Your task to perform on an android device: Go to sound settings Image 0: 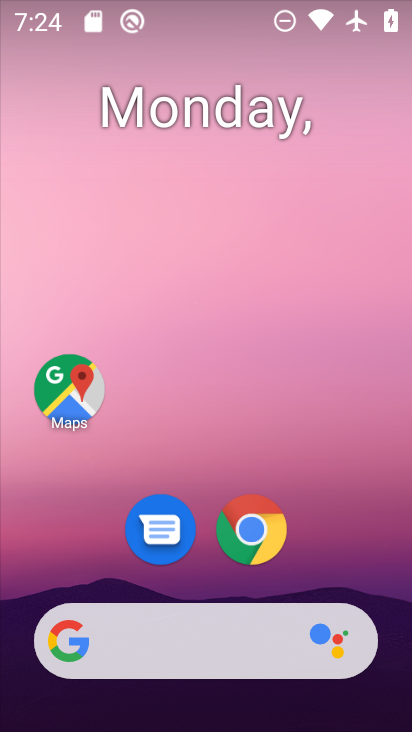
Step 0: drag from (321, 493) to (168, 61)
Your task to perform on an android device: Go to sound settings Image 1: 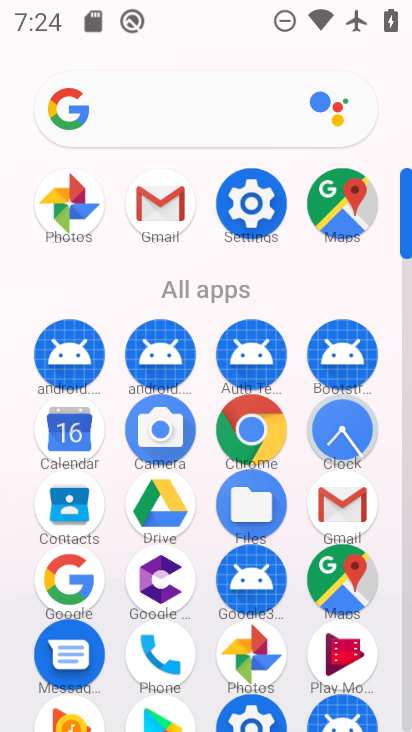
Step 1: click (252, 201)
Your task to perform on an android device: Go to sound settings Image 2: 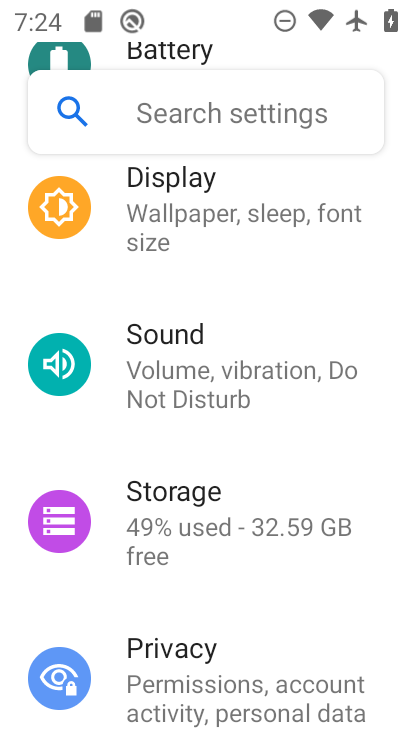
Step 2: drag from (231, 469) to (164, 237)
Your task to perform on an android device: Go to sound settings Image 3: 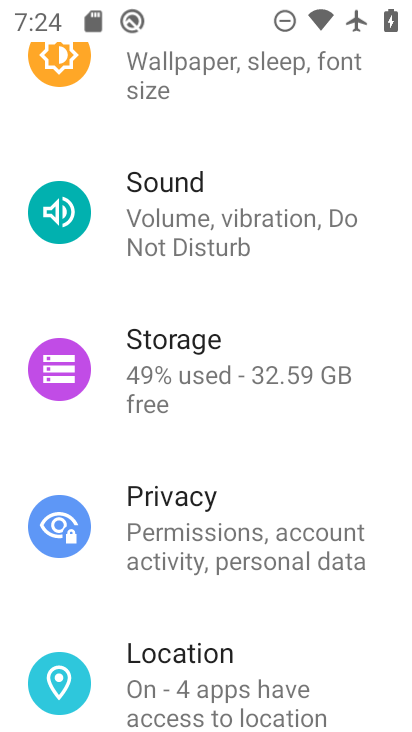
Step 3: drag from (270, 604) to (233, 608)
Your task to perform on an android device: Go to sound settings Image 4: 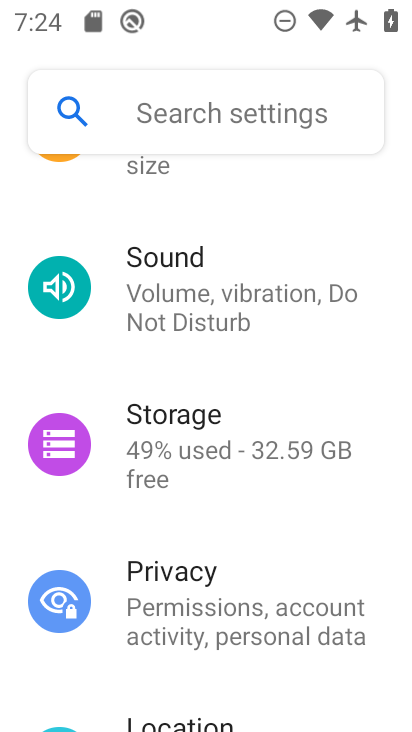
Step 4: click (146, 254)
Your task to perform on an android device: Go to sound settings Image 5: 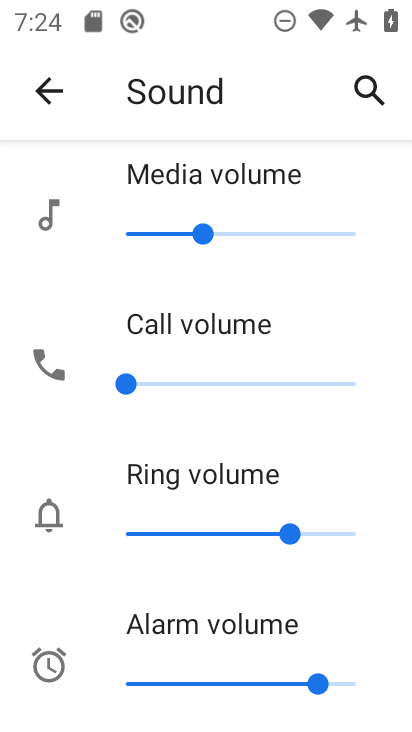
Step 5: task complete